Your task to perform on an android device: open app "Mercado Libre" Image 0: 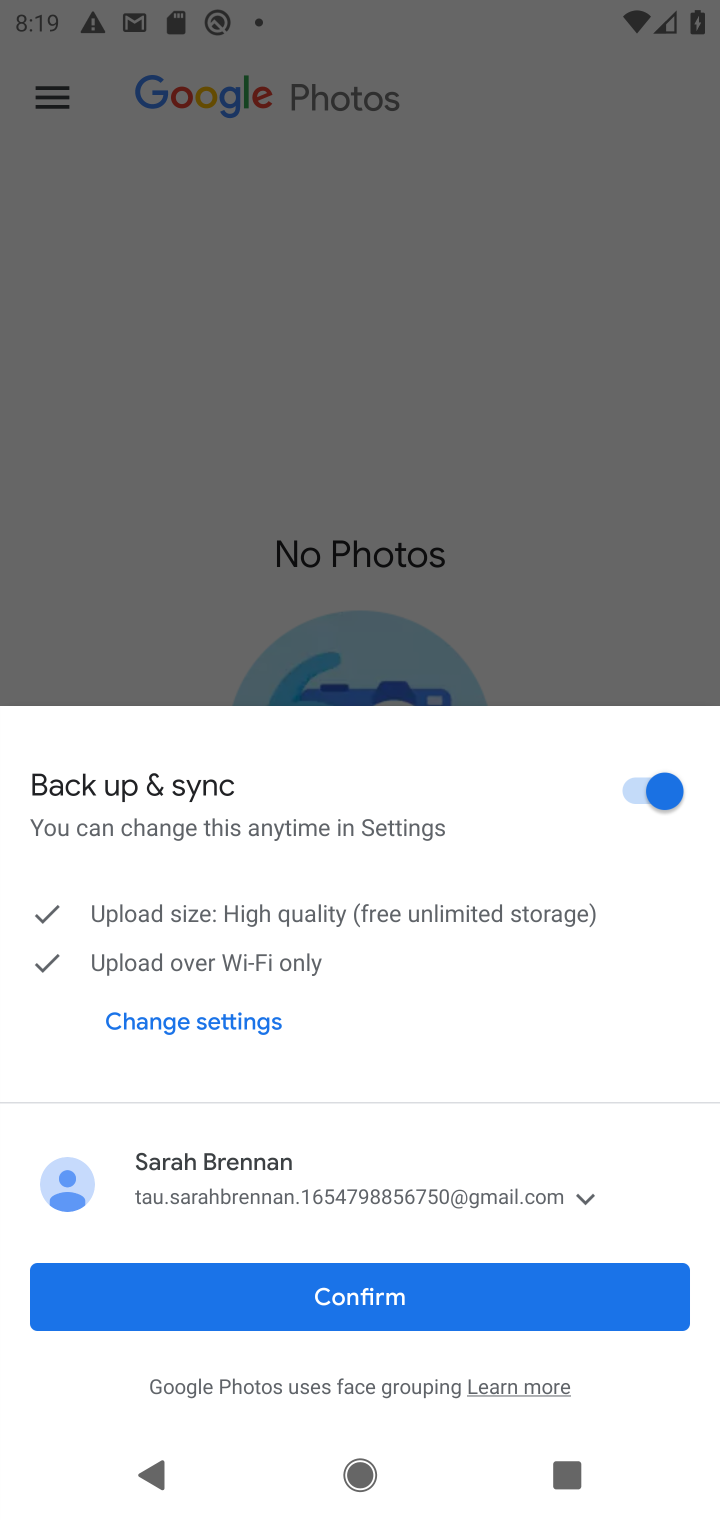
Step 0: press home button
Your task to perform on an android device: open app "Mercado Libre" Image 1: 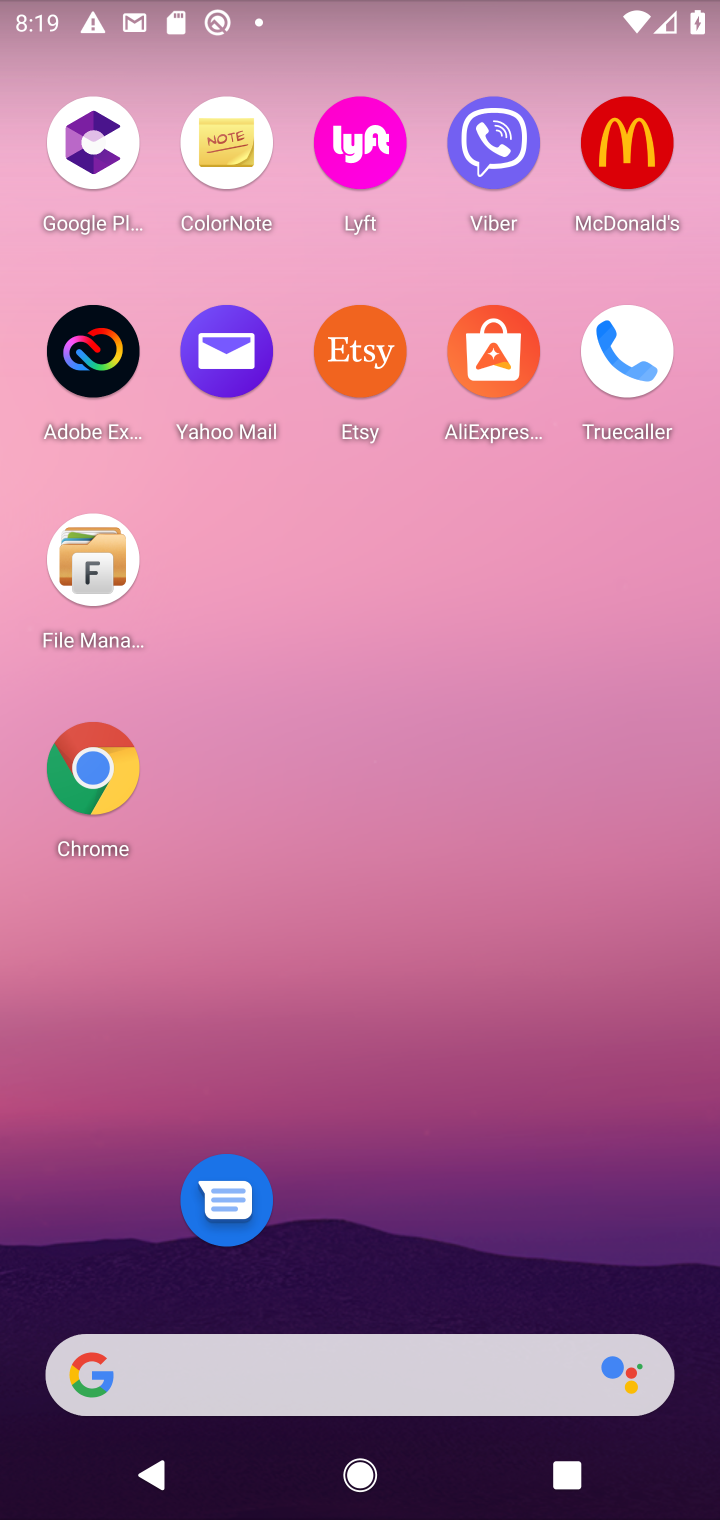
Step 1: drag from (468, 732) to (502, 253)
Your task to perform on an android device: open app "Mercado Libre" Image 2: 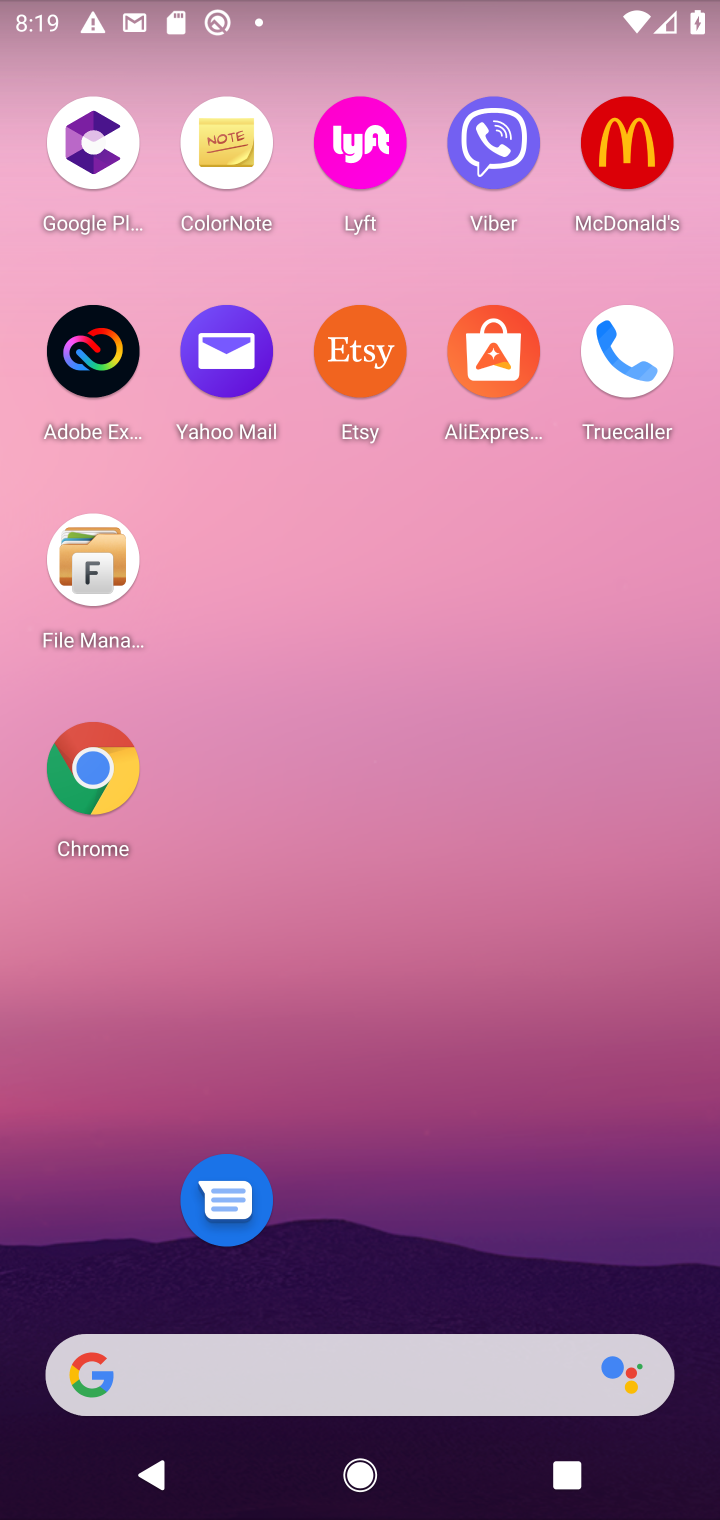
Step 2: drag from (240, 1338) to (380, 327)
Your task to perform on an android device: open app "Mercado Libre" Image 3: 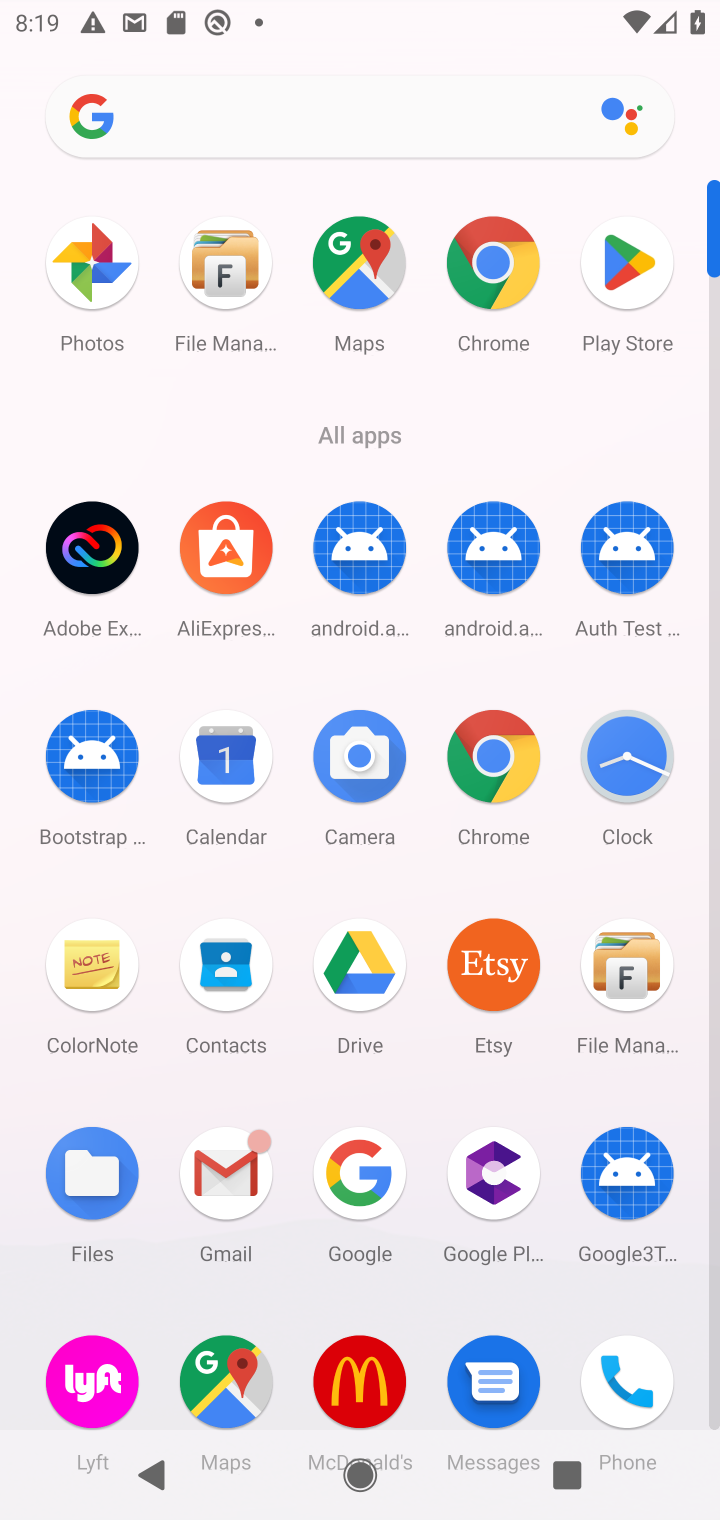
Step 3: click (643, 264)
Your task to perform on an android device: open app "Mercado Libre" Image 4: 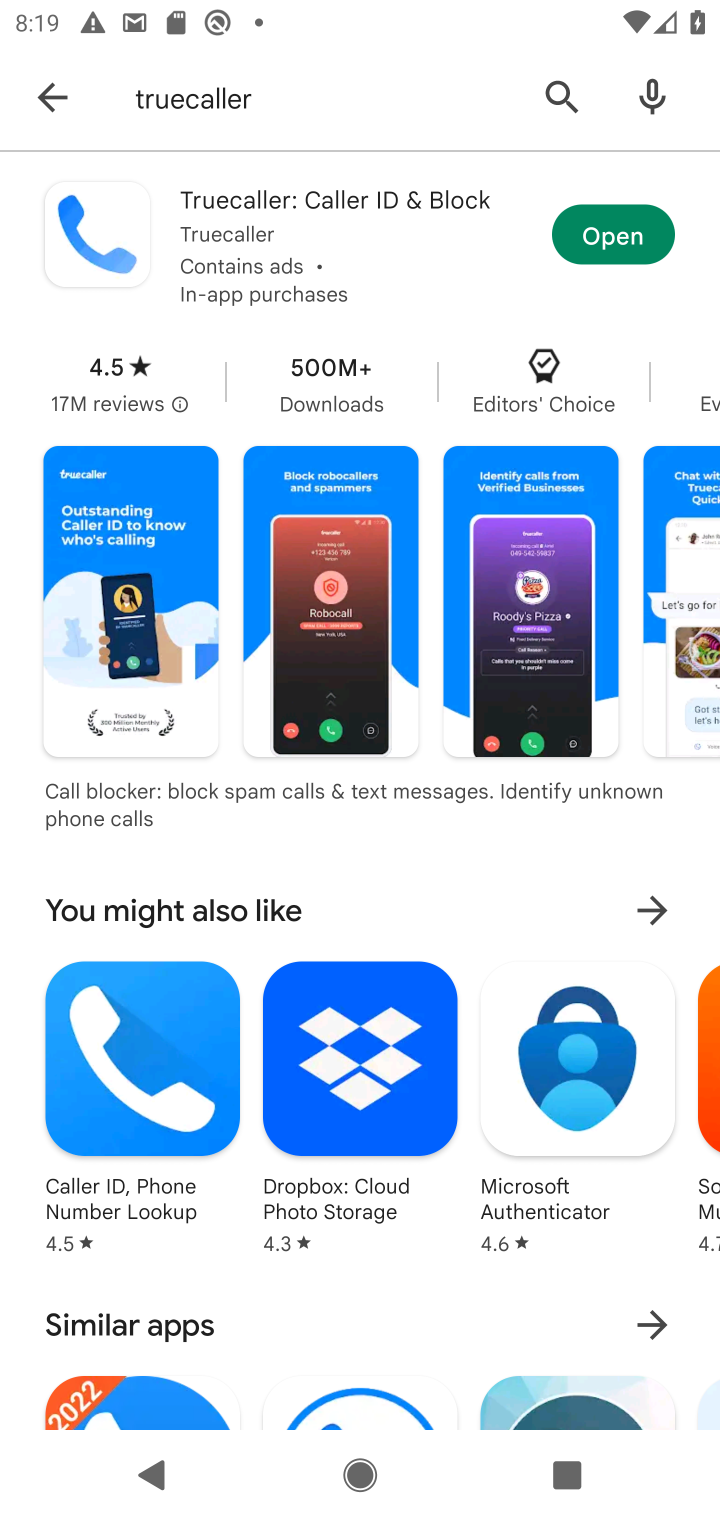
Step 4: click (568, 90)
Your task to perform on an android device: open app "Mercado Libre" Image 5: 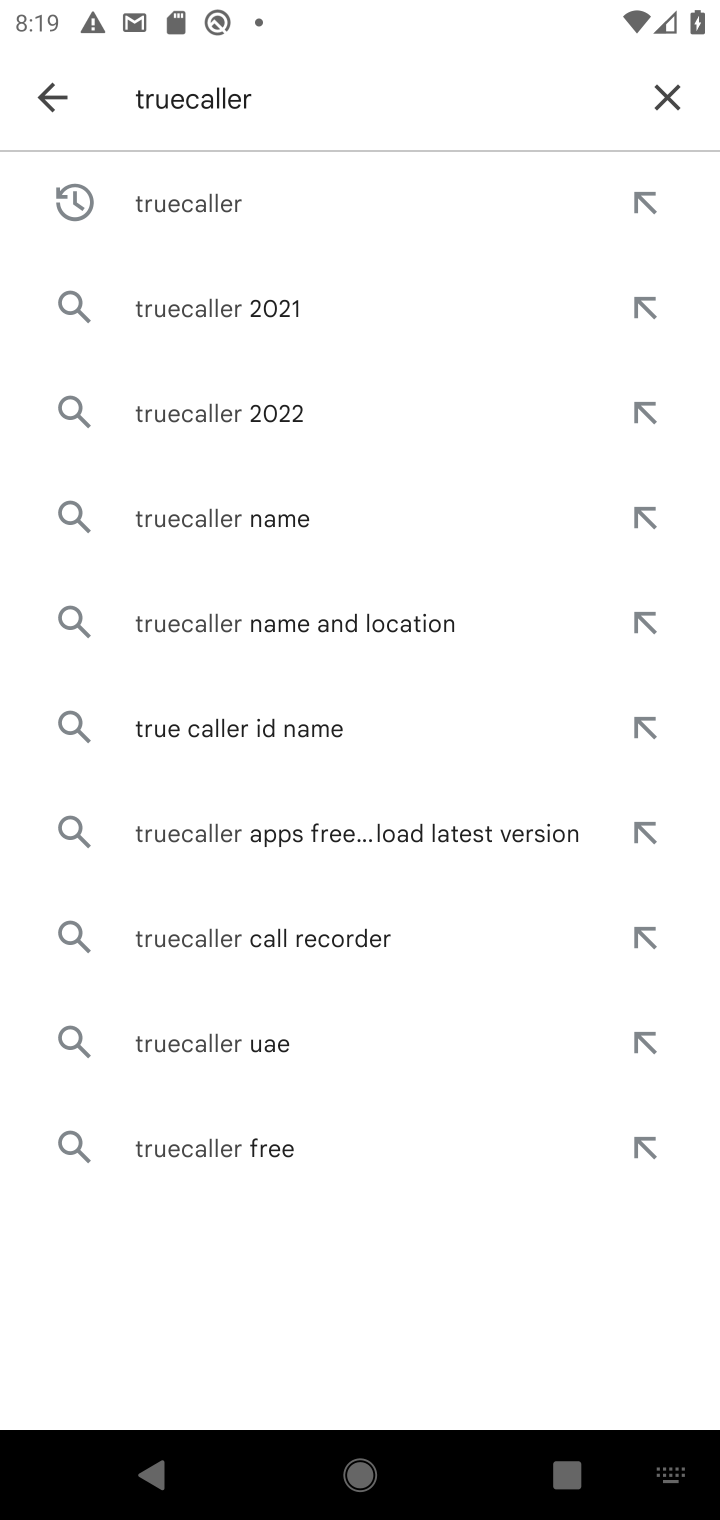
Step 5: click (646, 94)
Your task to perform on an android device: open app "Mercado Libre" Image 6: 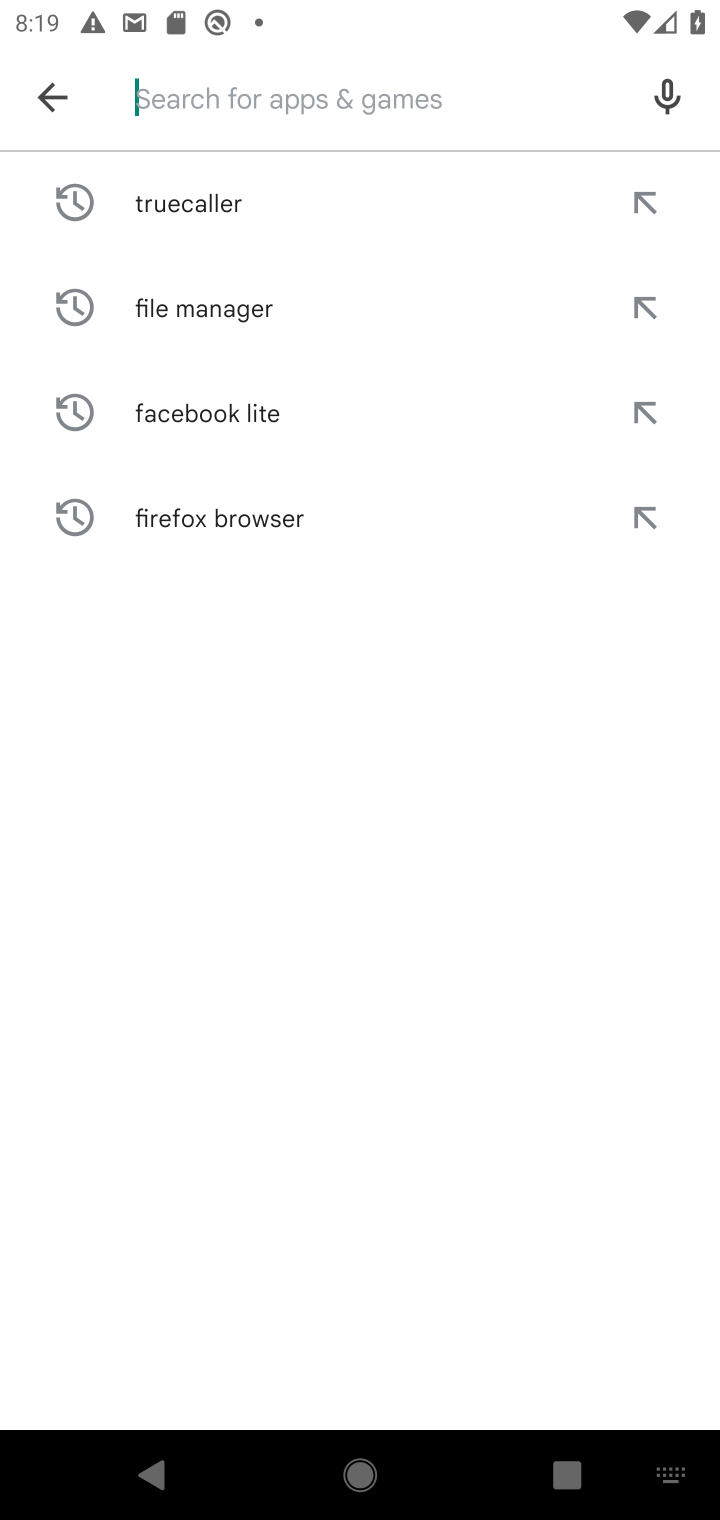
Step 6: click (193, 79)
Your task to perform on an android device: open app "Mercado Libre" Image 7: 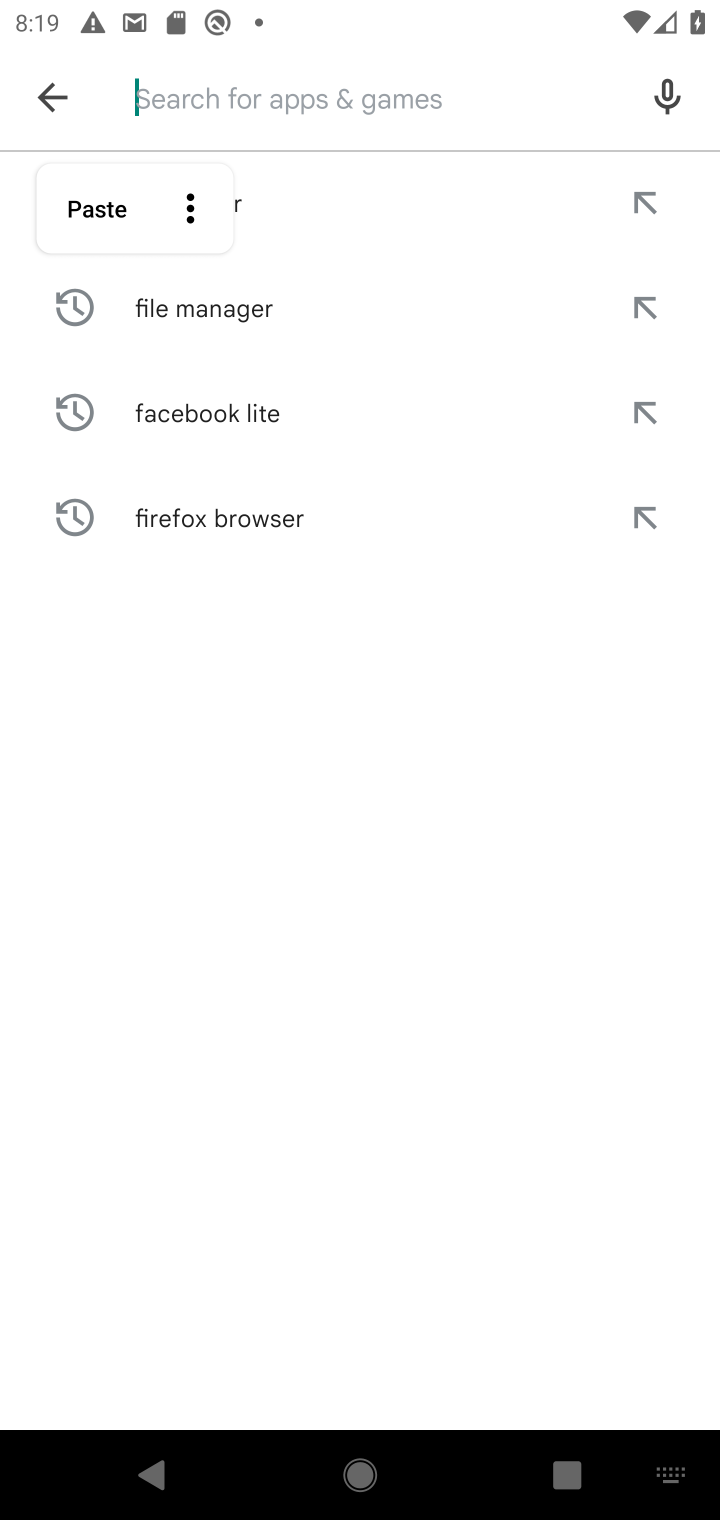
Step 7: type "Mercado Libre"
Your task to perform on an android device: open app "Mercado Libre" Image 8: 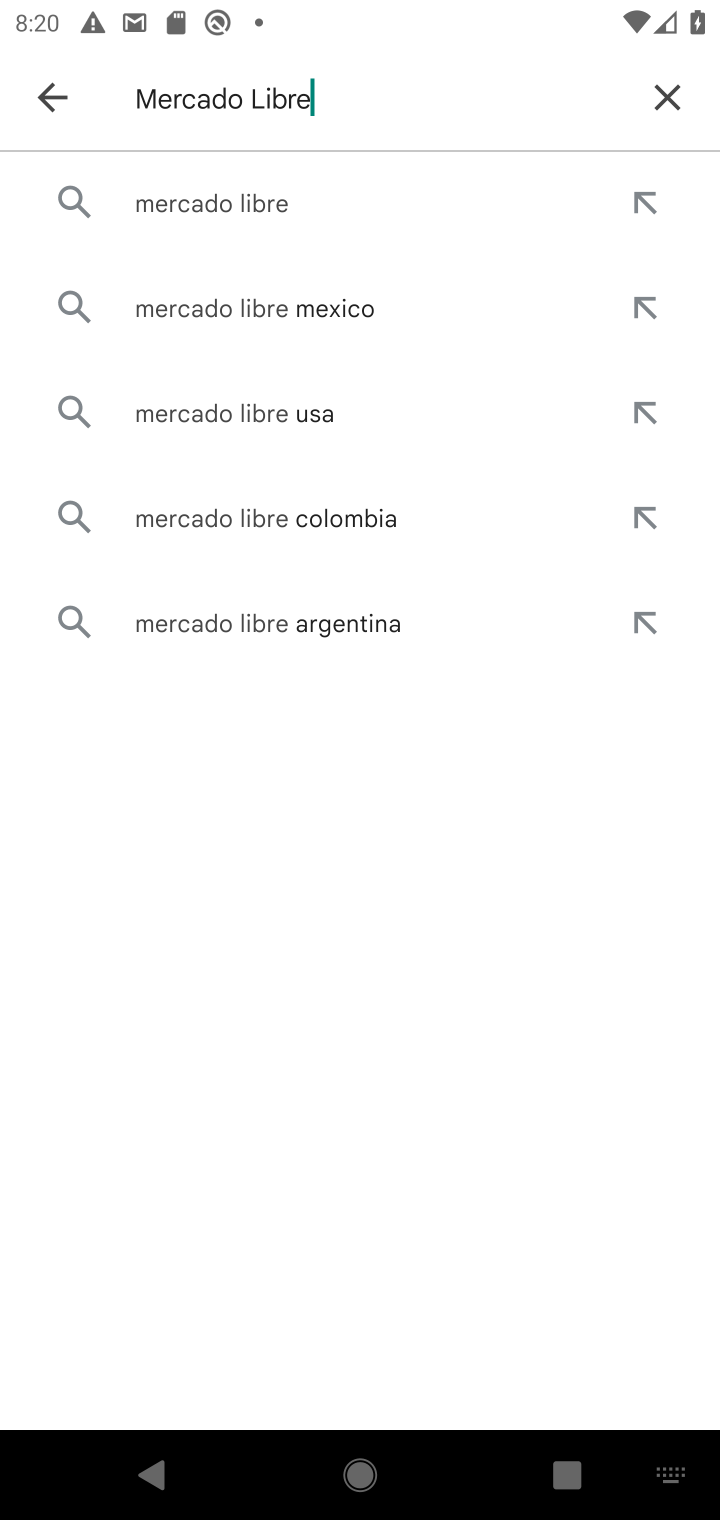
Step 8: click (276, 213)
Your task to perform on an android device: open app "Mercado Libre" Image 9: 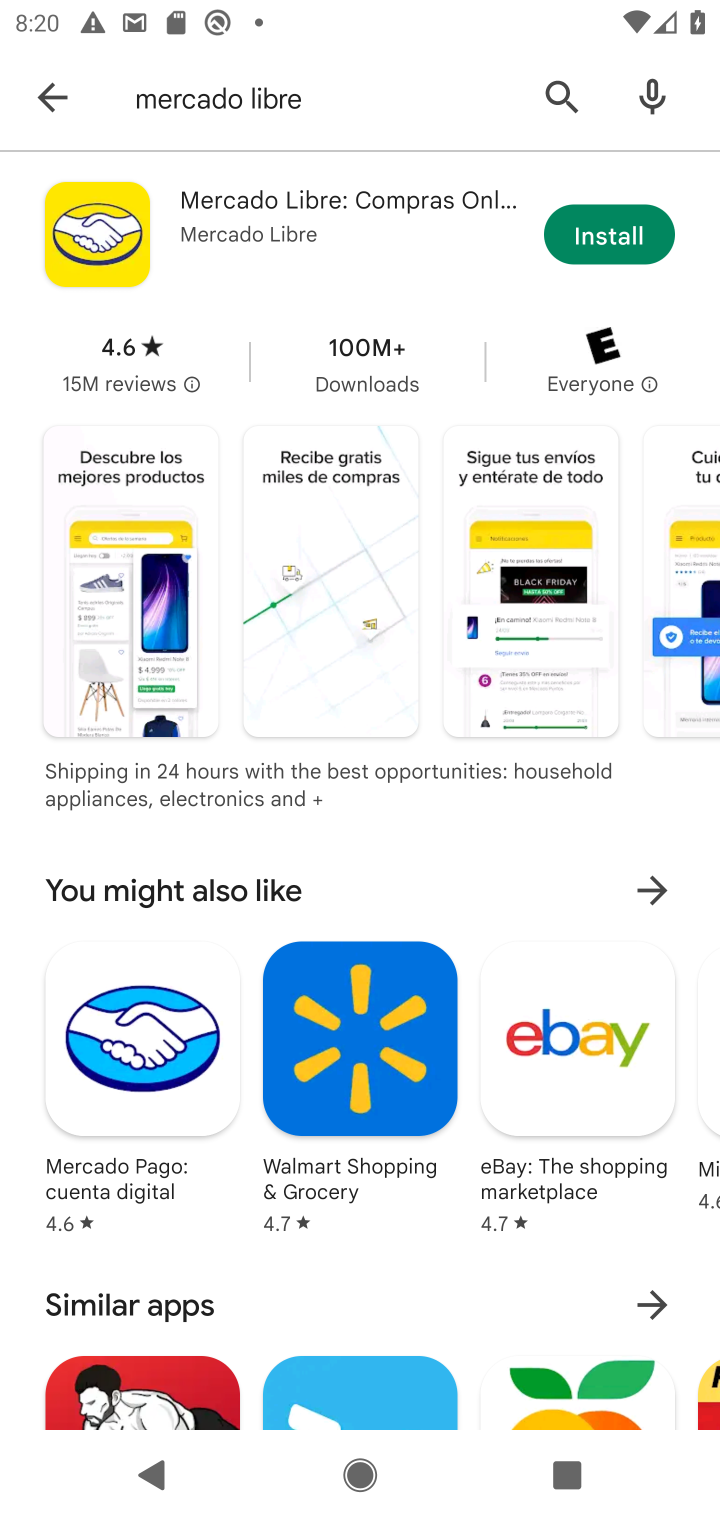
Step 9: click (638, 237)
Your task to perform on an android device: open app "Mercado Libre" Image 10: 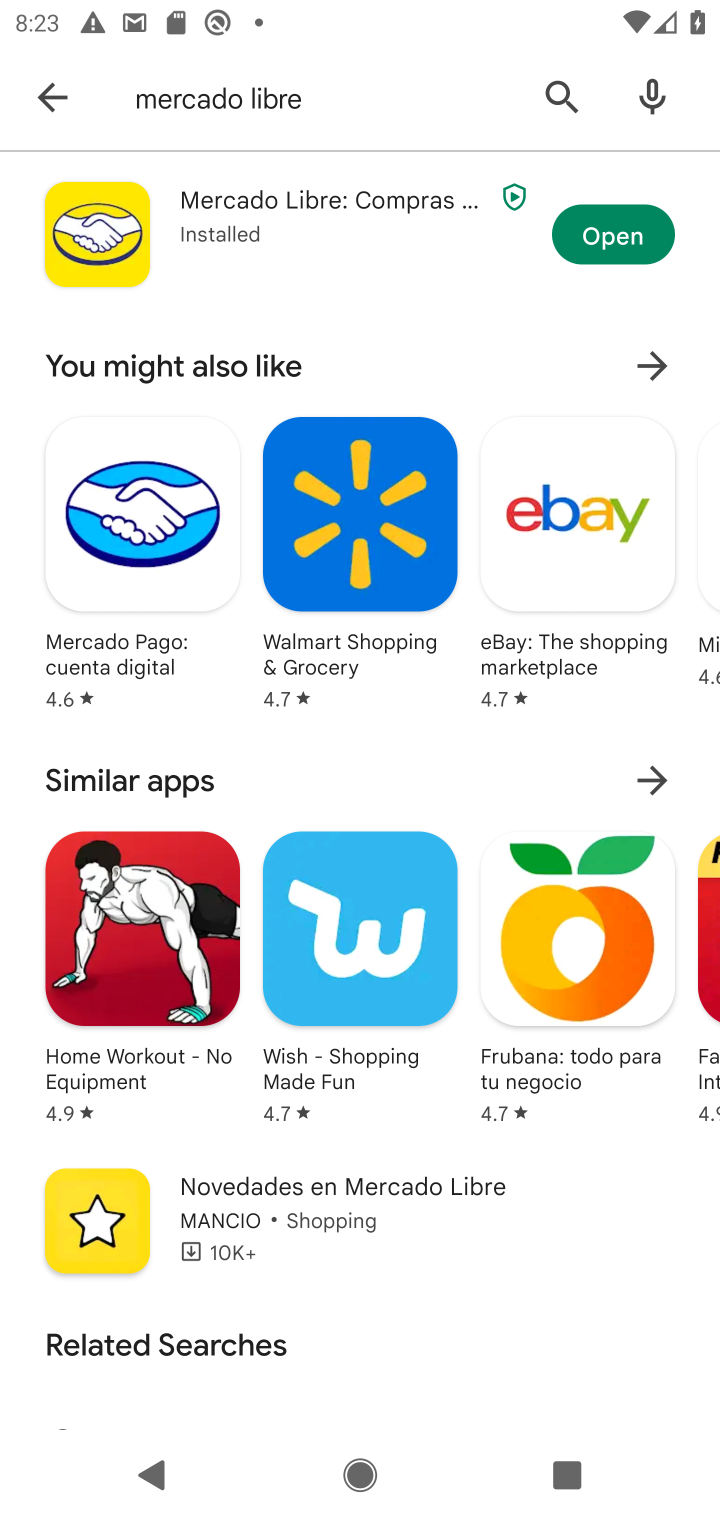
Step 10: click (597, 210)
Your task to perform on an android device: open app "Mercado Libre" Image 11: 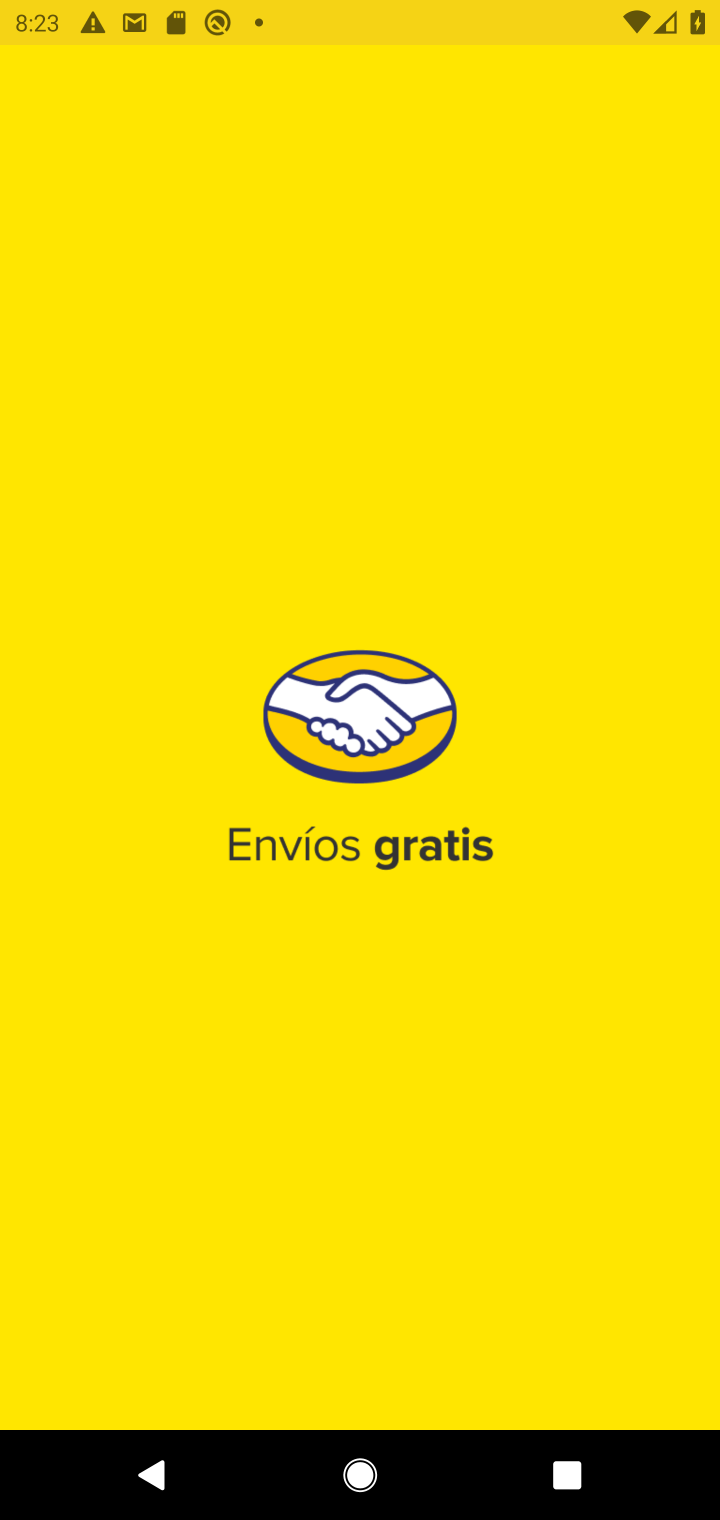
Step 11: task complete